Your task to perform on an android device: turn off javascript in the chrome app Image 0: 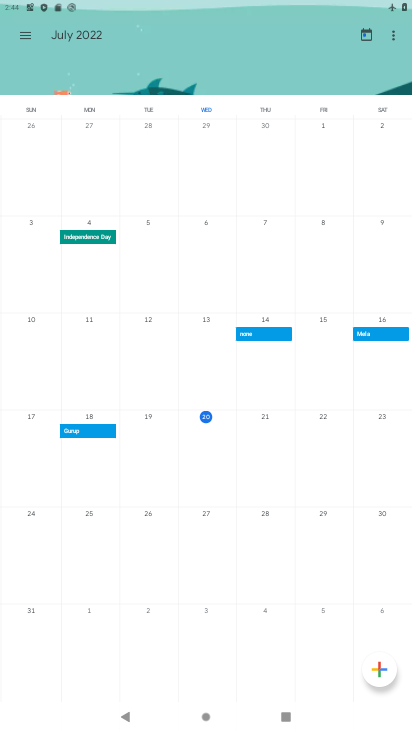
Step 0: press home button
Your task to perform on an android device: turn off javascript in the chrome app Image 1: 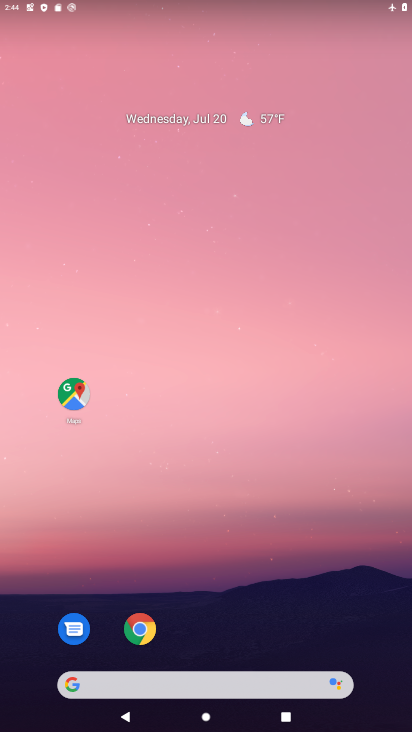
Step 1: click (147, 636)
Your task to perform on an android device: turn off javascript in the chrome app Image 2: 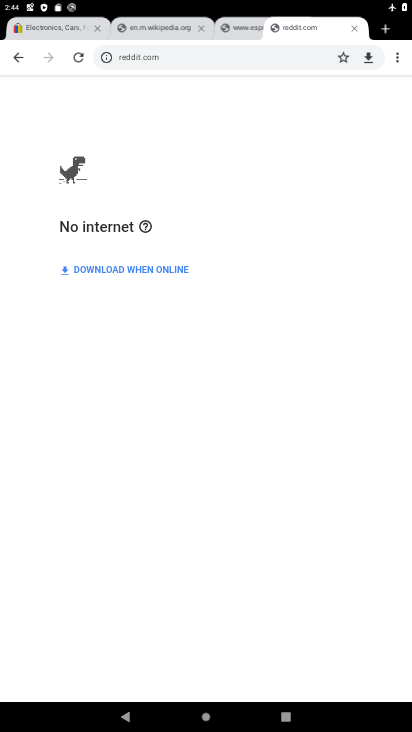
Step 2: click (395, 51)
Your task to perform on an android device: turn off javascript in the chrome app Image 3: 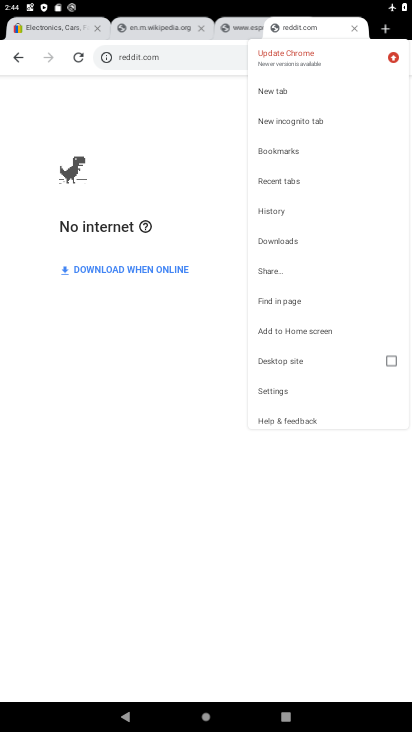
Step 3: click (312, 394)
Your task to perform on an android device: turn off javascript in the chrome app Image 4: 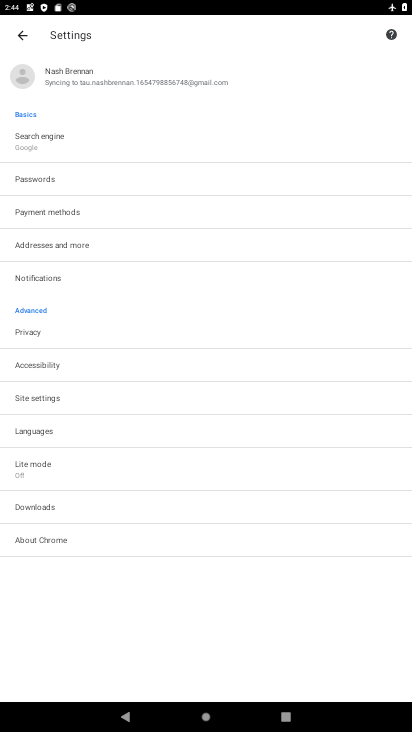
Step 4: click (52, 398)
Your task to perform on an android device: turn off javascript in the chrome app Image 5: 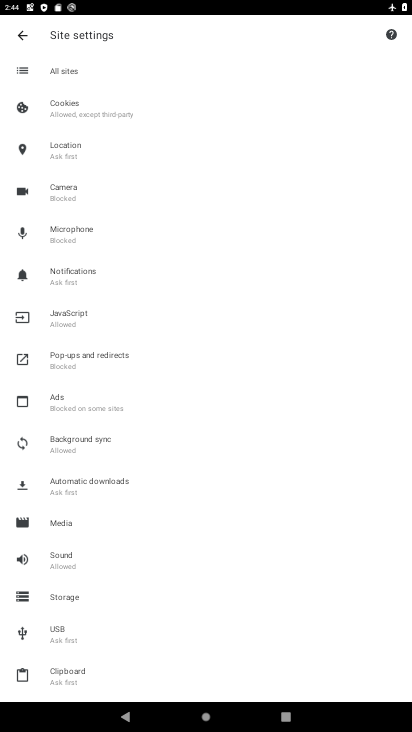
Step 5: click (39, 321)
Your task to perform on an android device: turn off javascript in the chrome app Image 6: 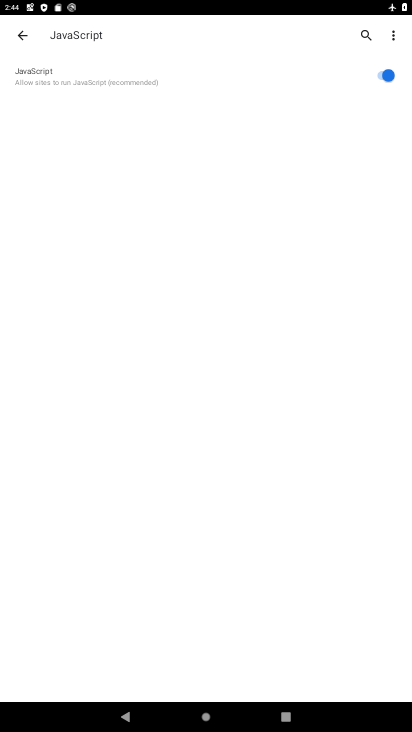
Step 6: click (381, 71)
Your task to perform on an android device: turn off javascript in the chrome app Image 7: 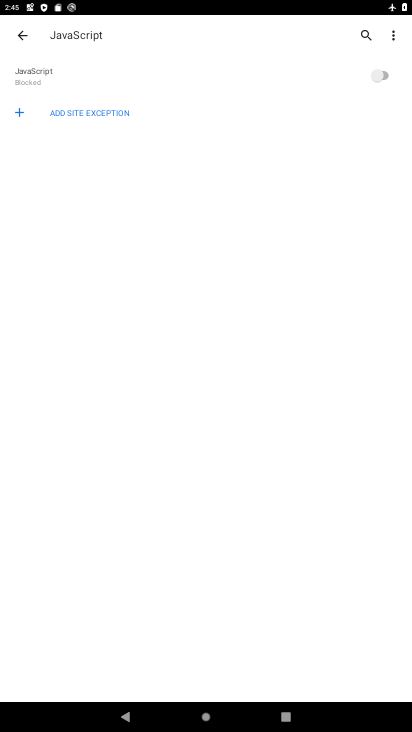
Step 7: task complete